Your task to perform on an android device: turn notification dots on Image 0: 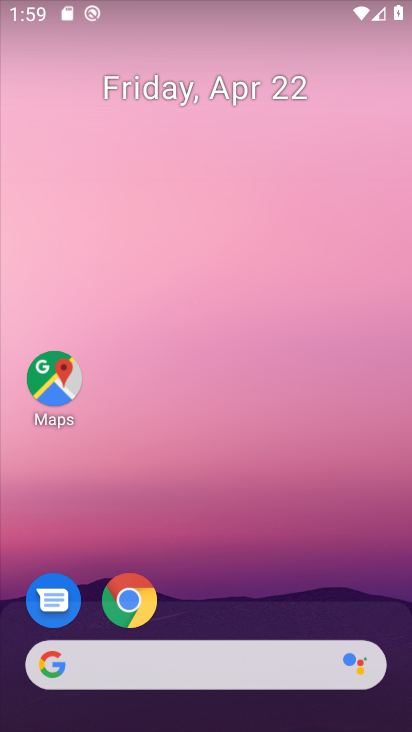
Step 0: drag from (197, 641) to (322, 61)
Your task to perform on an android device: turn notification dots on Image 1: 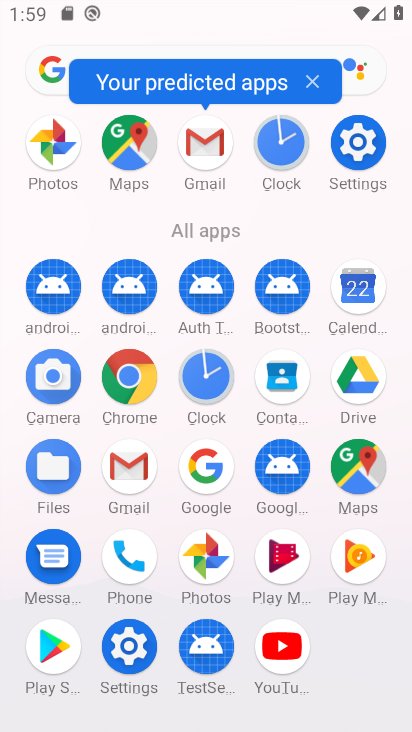
Step 1: click (121, 659)
Your task to perform on an android device: turn notification dots on Image 2: 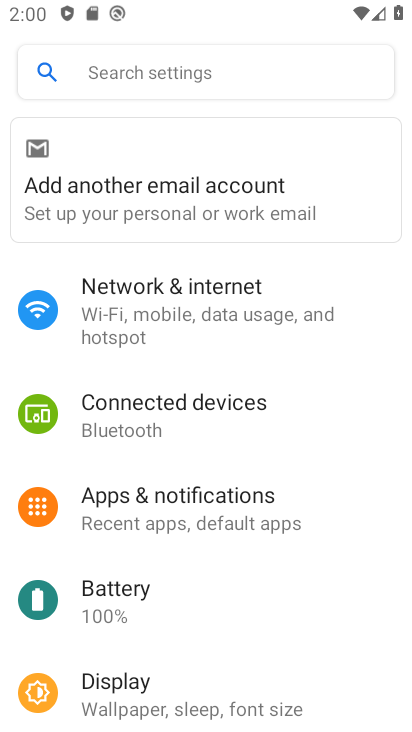
Step 2: click (189, 511)
Your task to perform on an android device: turn notification dots on Image 3: 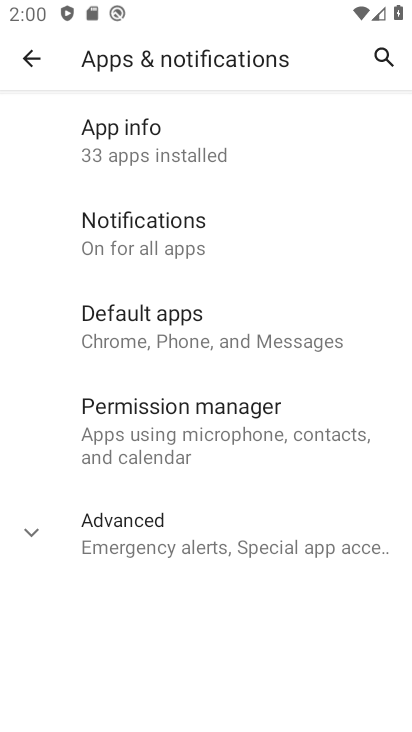
Step 3: click (217, 238)
Your task to perform on an android device: turn notification dots on Image 4: 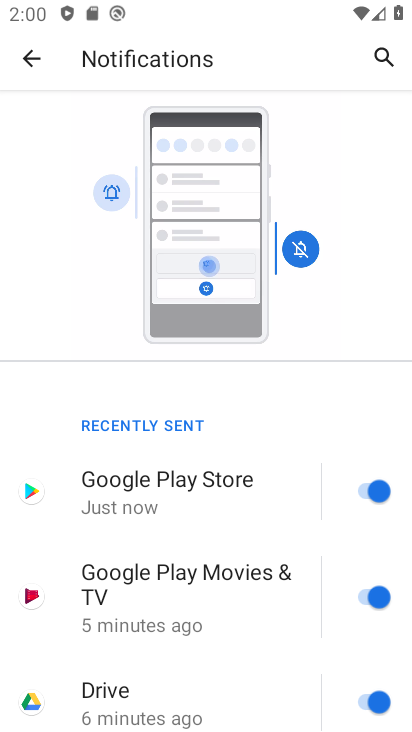
Step 4: drag from (161, 619) to (353, 84)
Your task to perform on an android device: turn notification dots on Image 5: 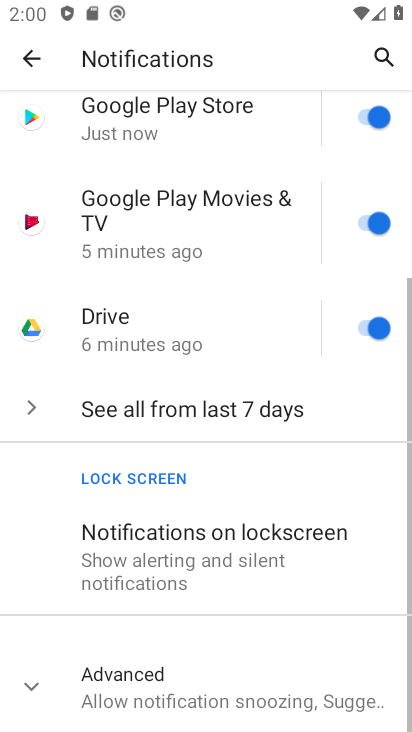
Step 5: drag from (147, 600) to (267, 404)
Your task to perform on an android device: turn notification dots on Image 6: 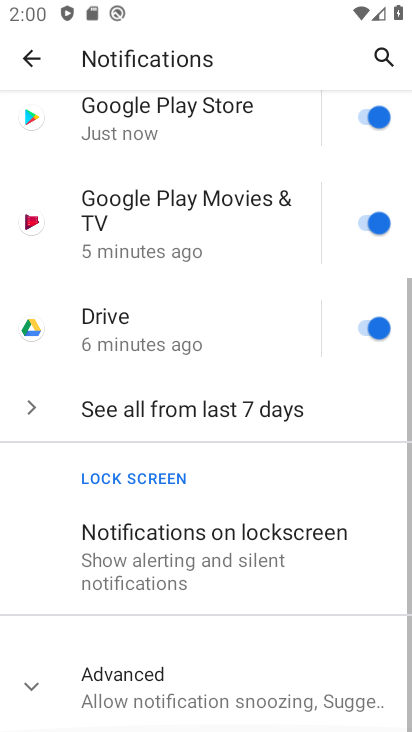
Step 6: click (177, 674)
Your task to perform on an android device: turn notification dots on Image 7: 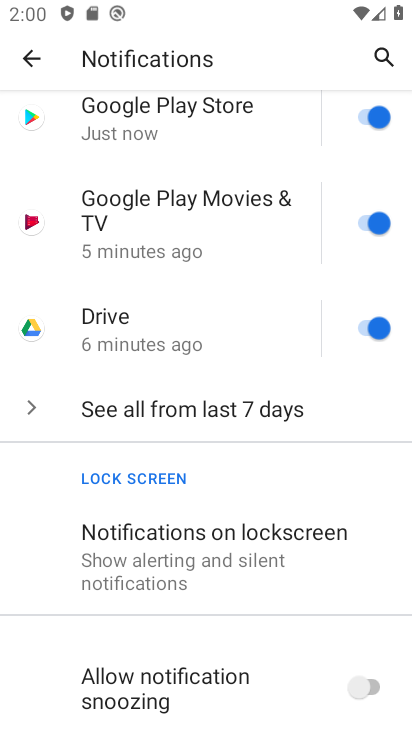
Step 7: task complete